Your task to perform on an android device: Open Google Maps Image 0: 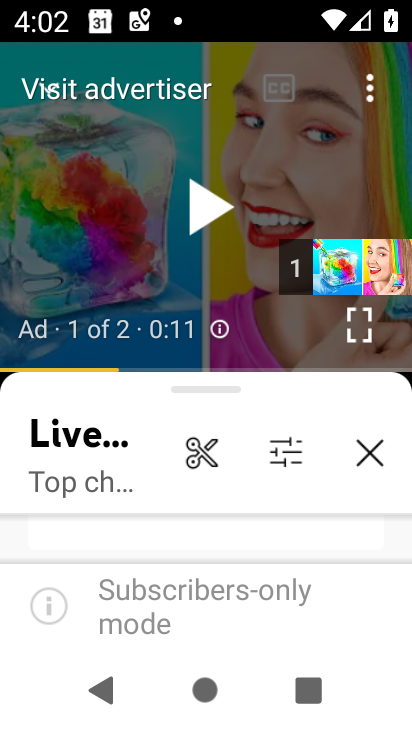
Step 0: press home button
Your task to perform on an android device: Open Google Maps Image 1: 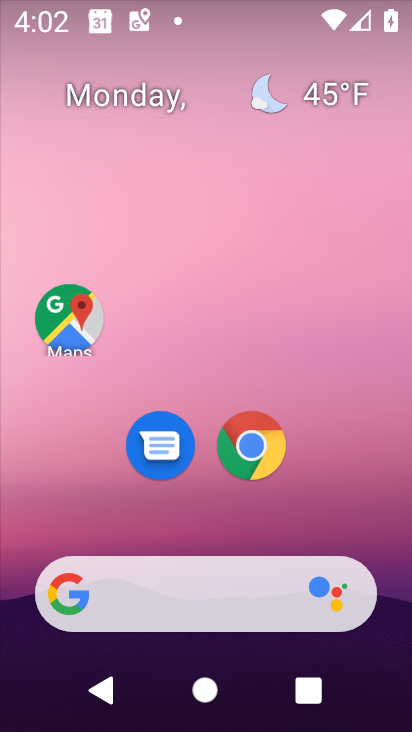
Step 1: click (56, 312)
Your task to perform on an android device: Open Google Maps Image 2: 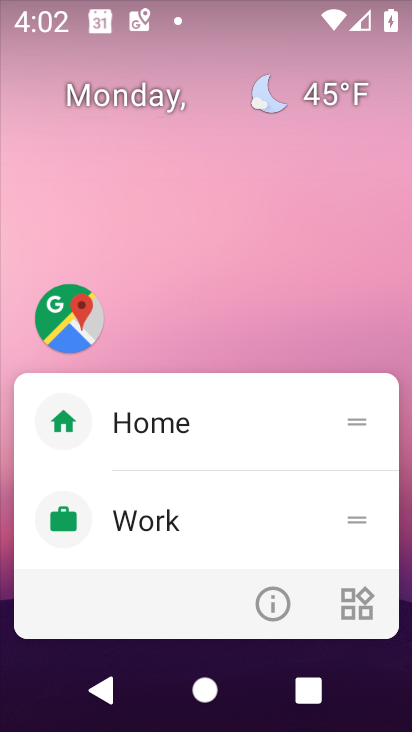
Step 2: click (65, 323)
Your task to perform on an android device: Open Google Maps Image 3: 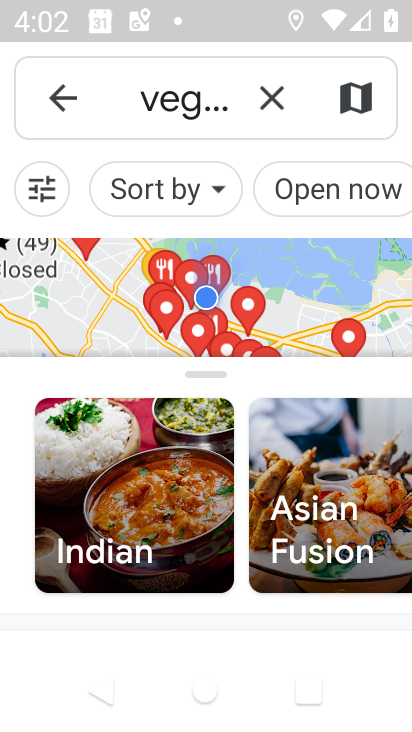
Step 3: click (43, 98)
Your task to perform on an android device: Open Google Maps Image 4: 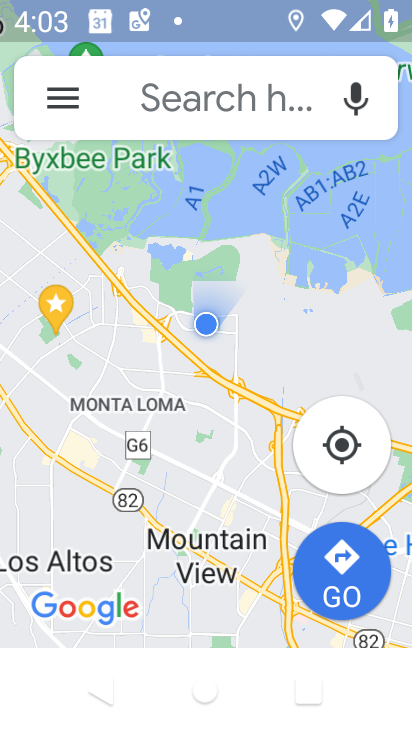
Step 4: task complete